Your task to perform on an android device: turn off javascript in the chrome app Image 0: 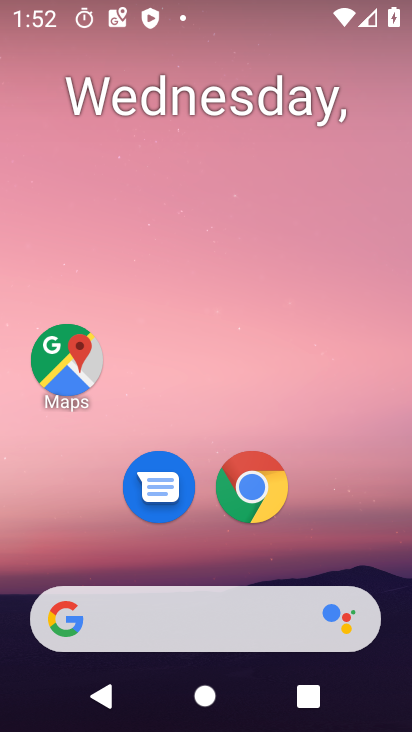
Step 0: click (261, 504)
Your task to perform on an android device: turn off javascript in the chrome app Image 1: 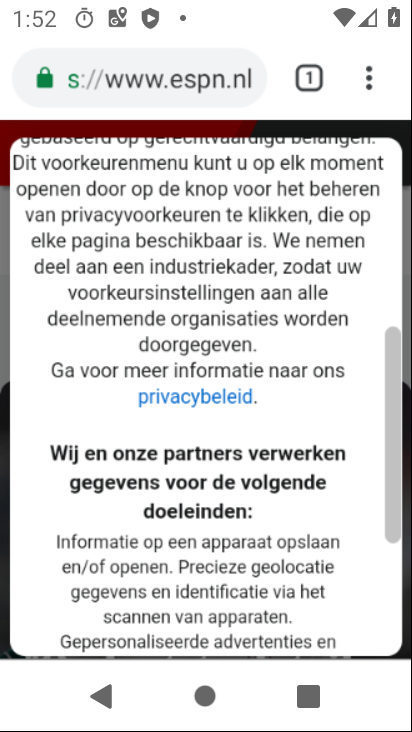
Step 1: drag from (363, 80) to (135, 548)
Your task to perform on an android device: turn off javascript in the chrome app Image 2: 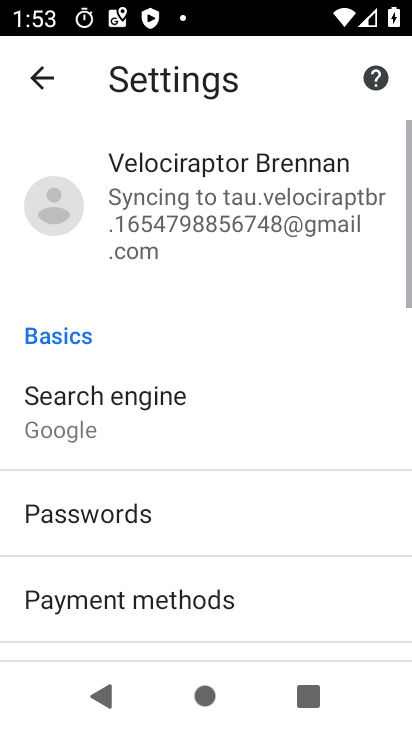
Step 2: drag from (111, 538) to (259, 16)
Your task to perform on an android device: turn off javascript in the chrome app Image 3: 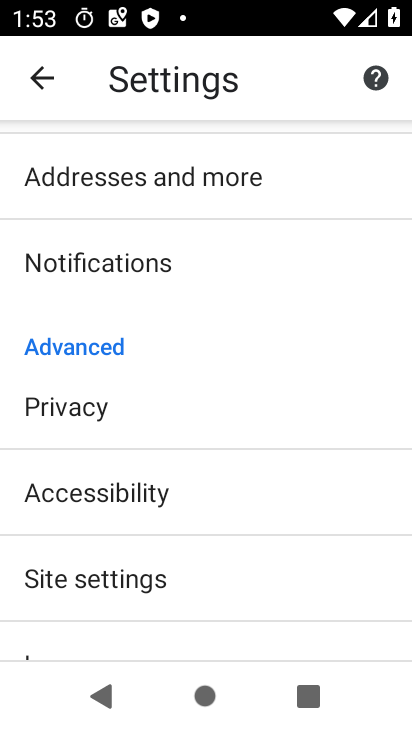
Step 3: drag from (132, 609) to (197, 197)
Your task to perform on an android device: turn off javascript in the chrome app Image 4: 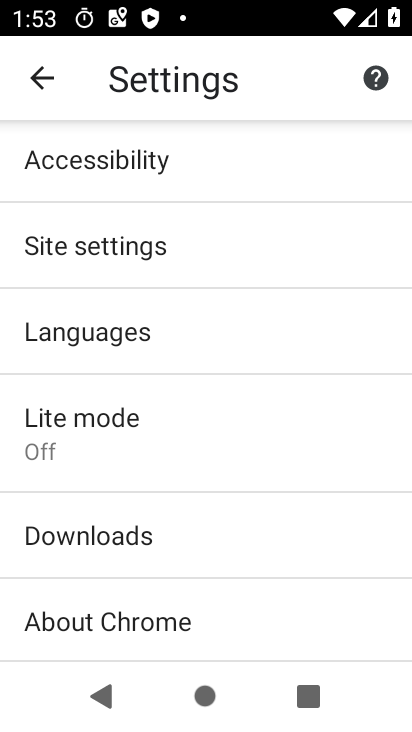
Step 4: click (140, 255)
Your task to perform on an android device: turn off javascript in the chrome app Image 5: 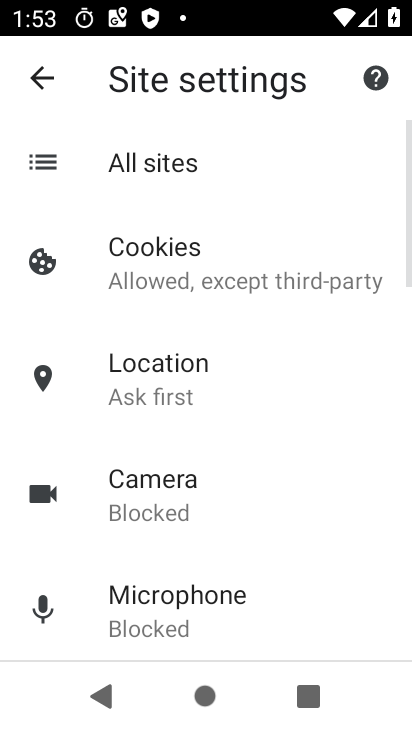
Step 5: drag from (207, 607) to (284, 75)
Your task to perform on an android device: turn off javascript in the chrome app Image 6: 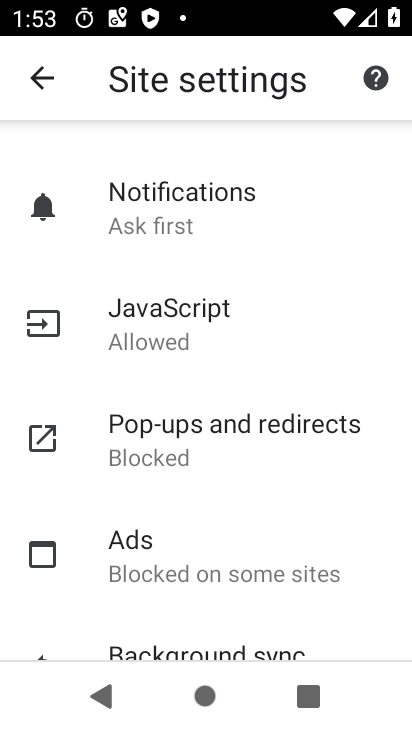
Step 6: click (141, 322)
Your task to perform on an android device: turn off javascript in the chrome app Image 7: 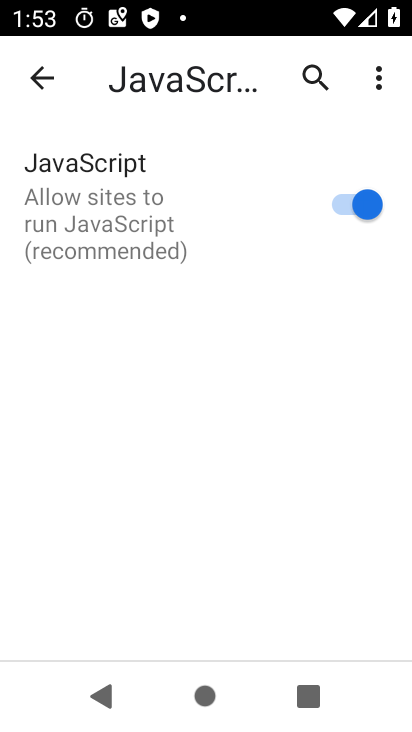
Step 7: click (364, 204)
Your task to perform on an android device: turn off javascript in the chrome app Image 8: 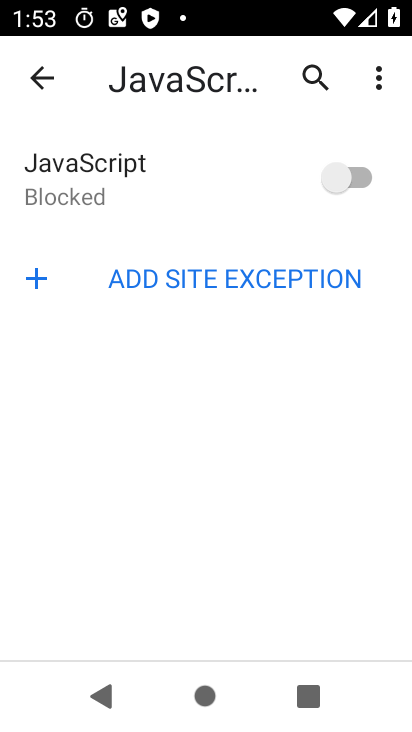
Step 8: task complete